Your task to perform on an android device: Open settings Image 0: 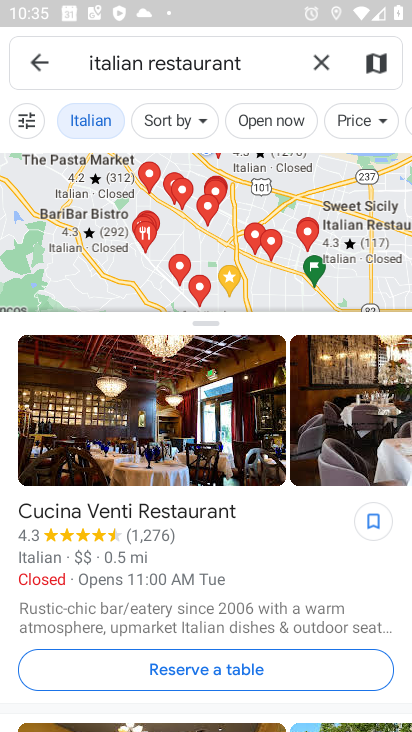
Step 0: click (394, 700)
Your task to perform on an android device: Open settings Image 1: 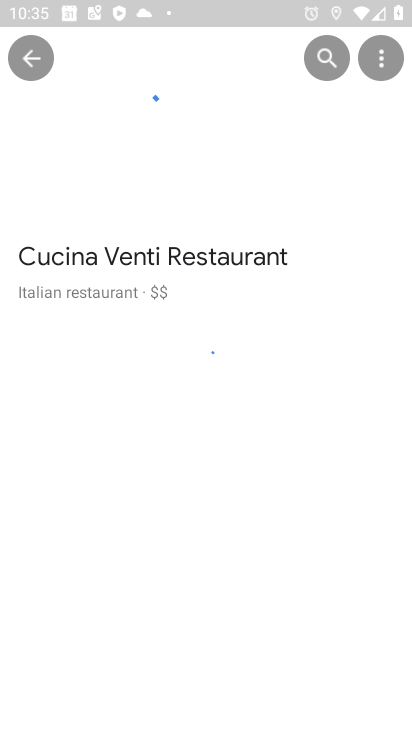
Step 1: press home button
Your task to perform on an android device: Open settings Image 2: 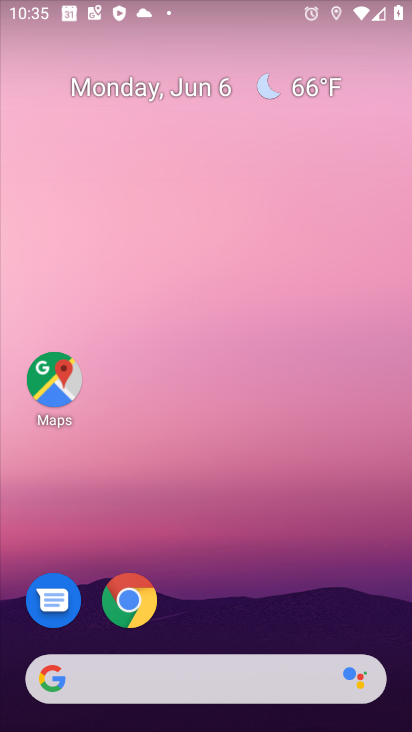
Step 2: drag from (59, 511) to (215, 125)
Your task to perform on an android device: Open settings Image 3: 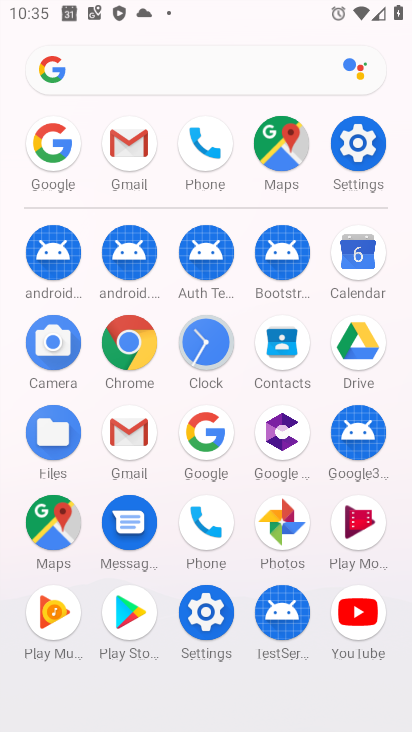
Step 3: click (351, 148)
Your task to perform on an android device: Open settings Image 4: 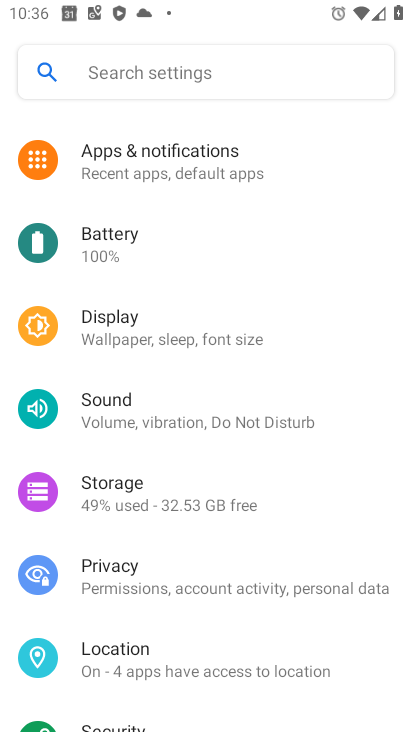
Step 4: task complete